Your task to perform on an android device: check data usage Image 0: 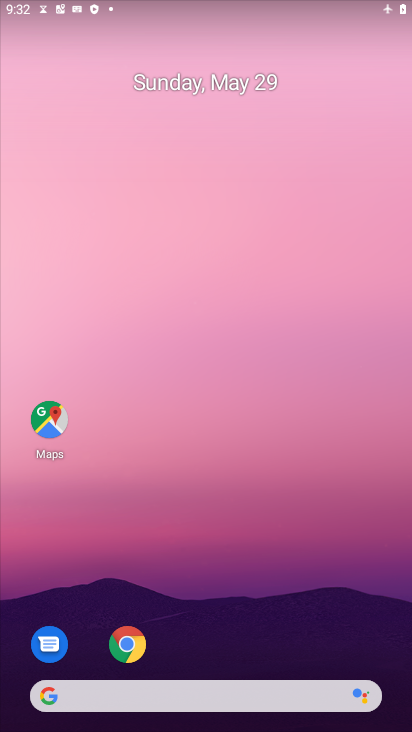
Step 0: drag from (238, 441) to (231, 242)
Your task to perform on an android device: check data usage Image 1: 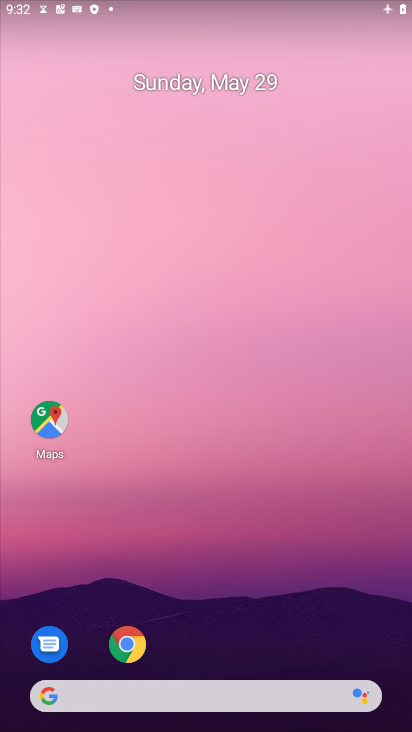
Step 1: drag from (268, 653) to (271, 233)
Your task to perform on an android device: check data usage Image 2: 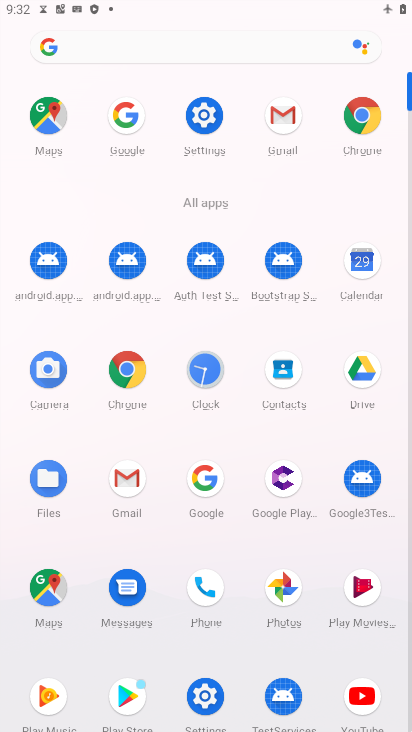
Step 2: click (197, 111)
Your task to perform on an android device: check data usage Image 3: 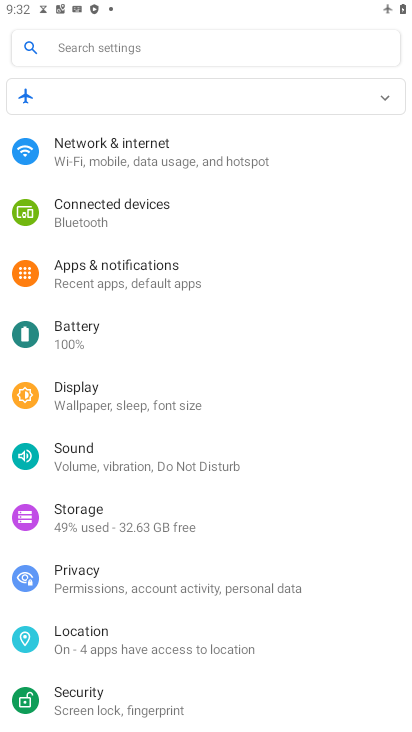
Step 3: click (172, 161)
Your task to perform on an android device: check data usage Image 4: 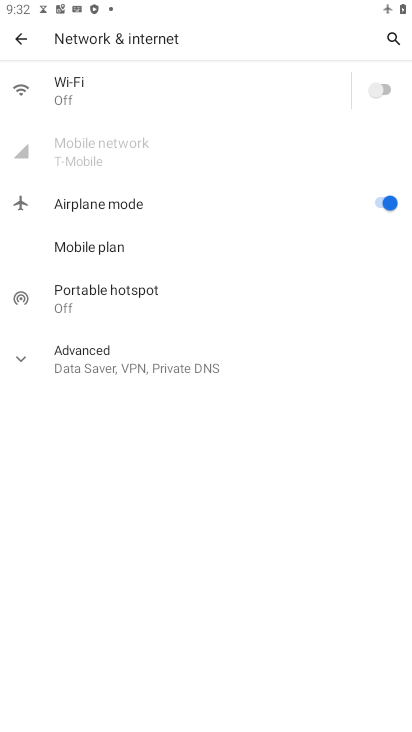
Step 4: click (125, 154)
Your task to perform on an android device: check data usage Image 5: 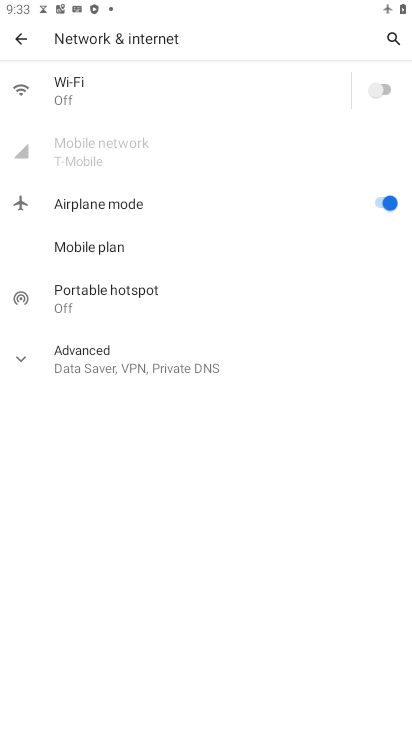
Step 5: task complete